Your task to perform on an android device: Open calendar and show me the second week of next month Image 0: 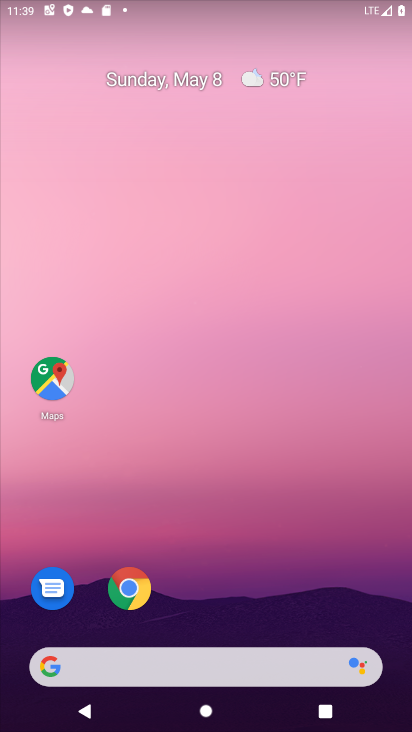
Step 0: drag from (236, 589) to (269, 64)
Your task to perform on an android device: Open calendar and show me the second week of next month Image 1: 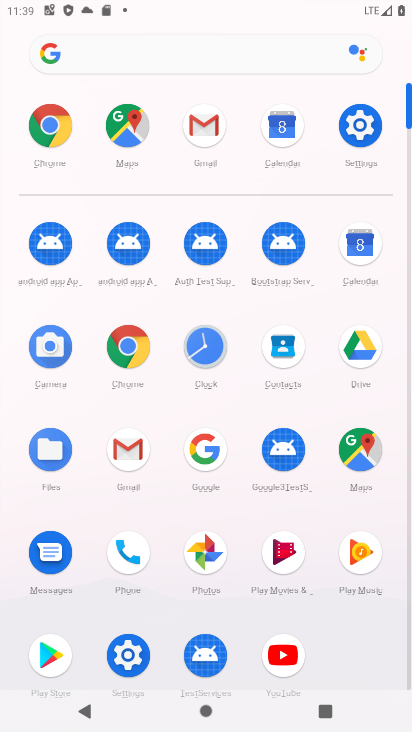
Step 1: click (359, 245)
Your task to perform on an android device: Open calendar and show me the second week of next month Image 2: 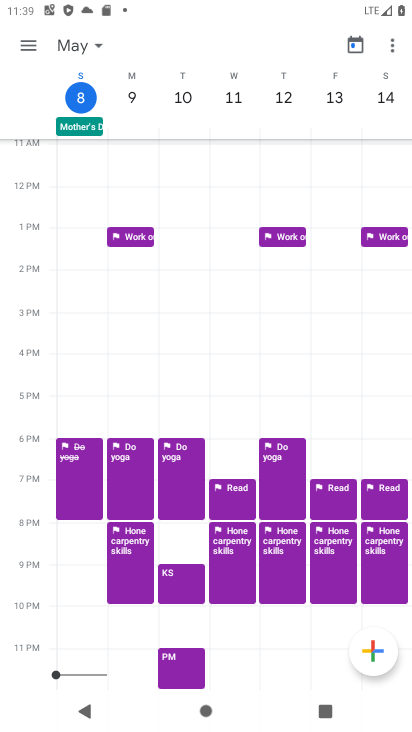
Step 2: click (96, 45)
Your task to perform on an android device: Open calendar and show me the second week of next month Image 3: 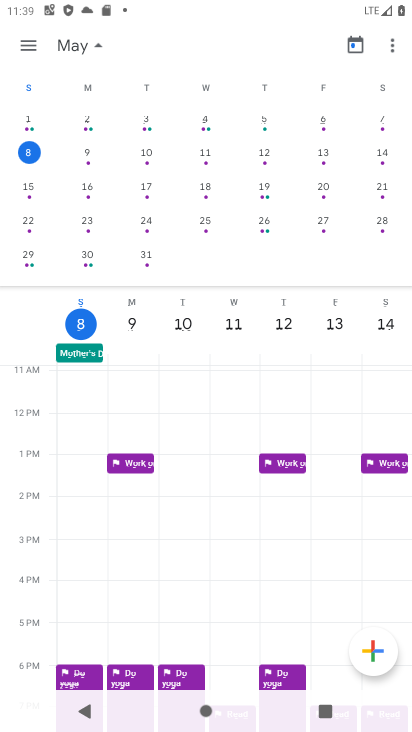
Step 3: drag from (348, 211) to (0, 189)
Your task to perform on an android device: Open calendar and show me the second week of next month Image 4: 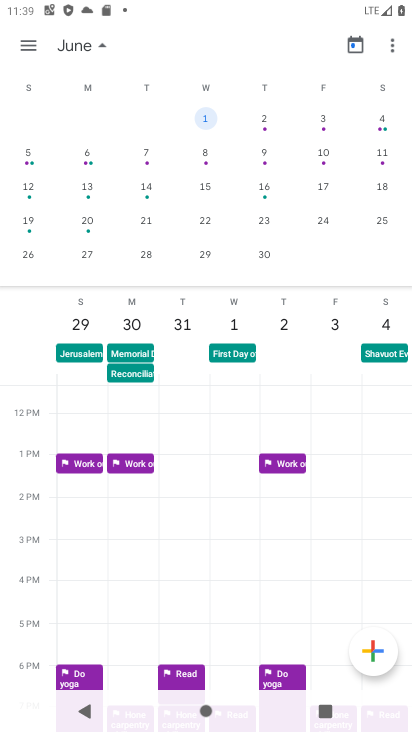
Step 4: click (33, 159)
Your task to perform on an android device: Open calendar and show me the second week of next month Image 5: 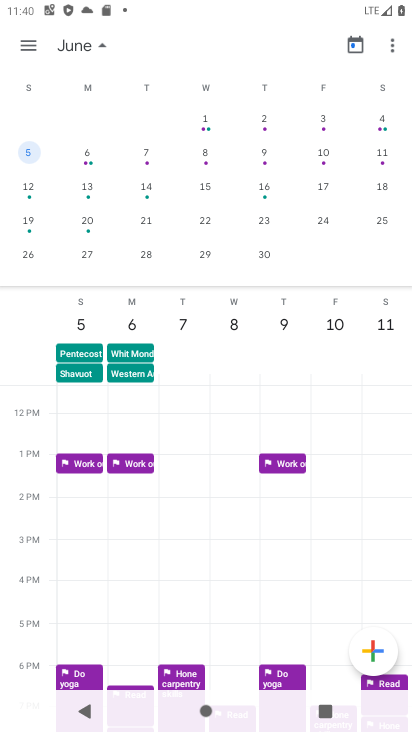
Step 5: task complete